Your task to perform on an android device: Go to network settings Image 0: 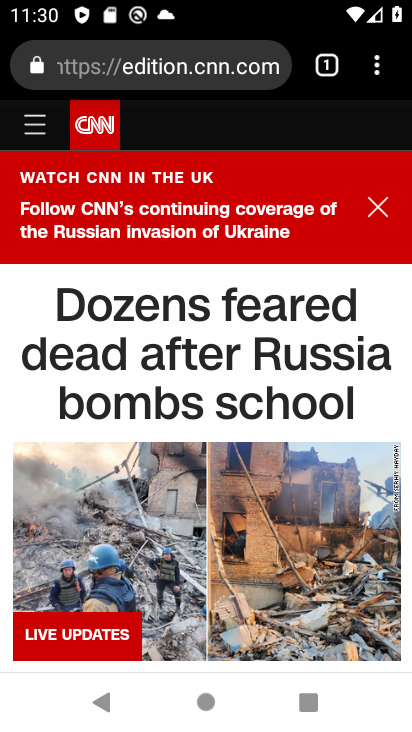
Step 0: press home button
Your task to perform on an android device: Go to network settings Image 1: 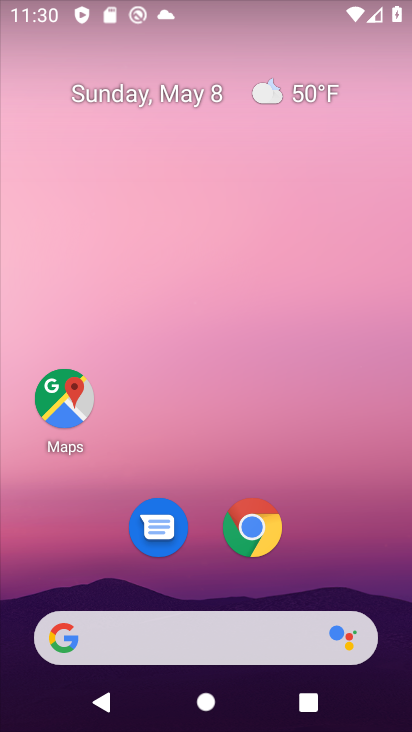
Step 1: drag from (219, 722) to (217, 194)
Your task to perform on an android device: Go to network settings Image 2: 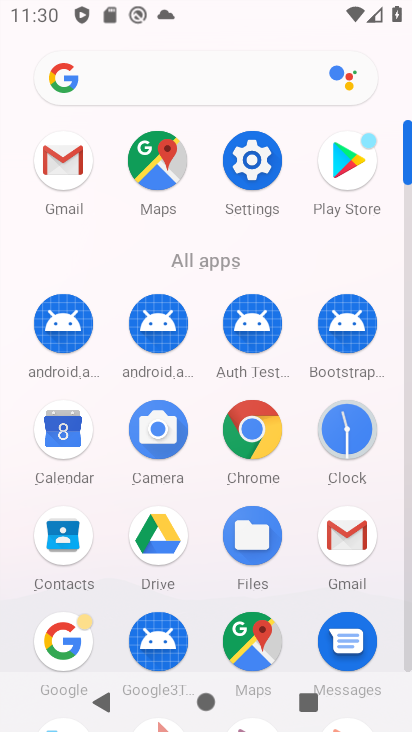
Step 2: click (238, 151)
Your task to perform on an android device: Go to network settings Image 3: 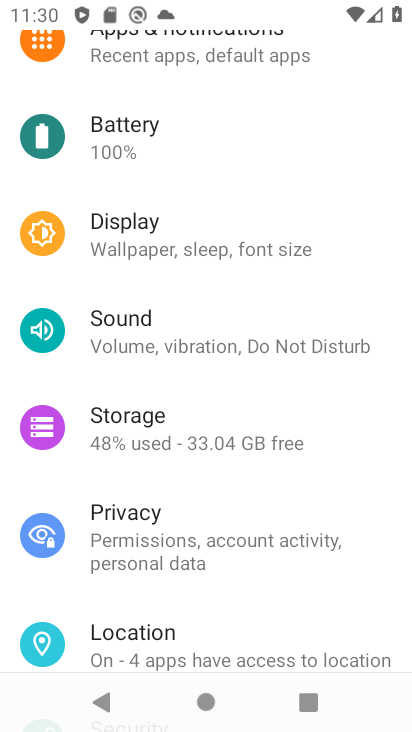
Step 3: drag from (250, 120) to (246, 566)
Your task to perform on an android device: Go to network settings Image 4: 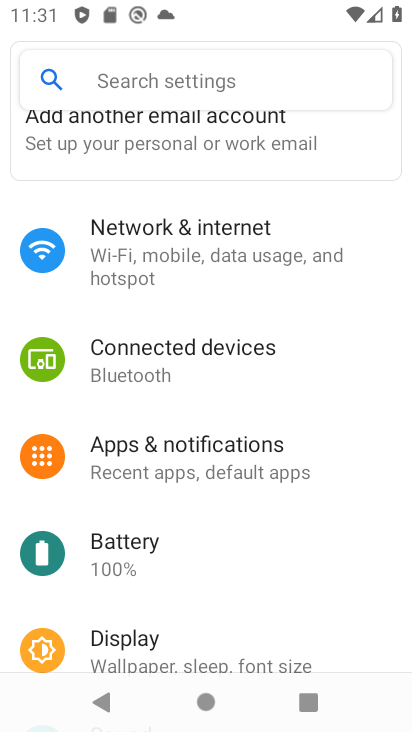
Step 4: click (198, 241)
Your task to perform on an android device: Go to network settings Image 5: 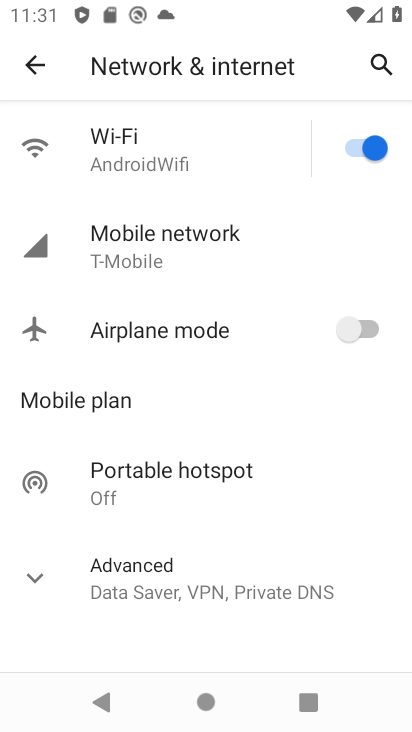
Step 5: click (157, 228)
Your task to perform on an android device: Go to network settings Image 6: 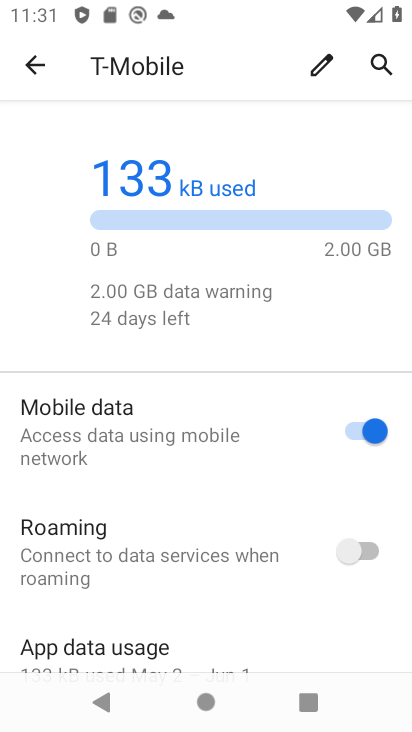
Step 6: task complete